Your task to perform on an android device: Open Google Chrome and open the bookmarks view Image 0: 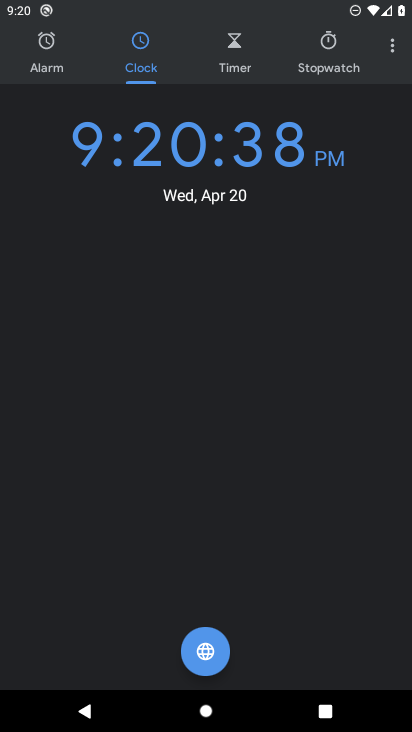
Step 0: press home button
Your task to perform on an android device: Open Google Chrome and open the bookmarks view Image 1: 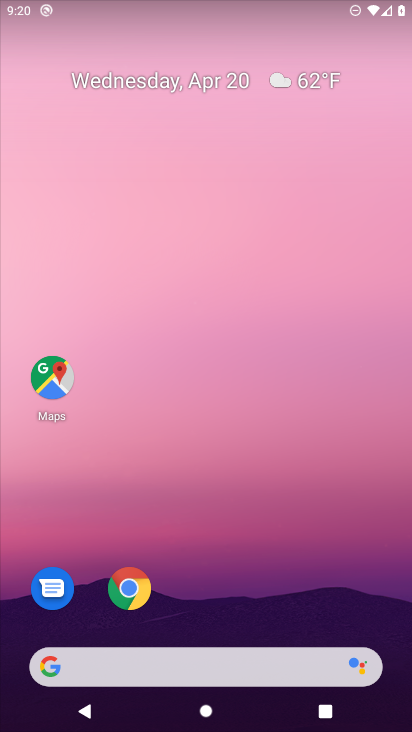
Step 1: drag from (245, 609) to (249, 172)
Your task to perform on an android device: Open Google Chrome and open the bookmarks view Image 2: 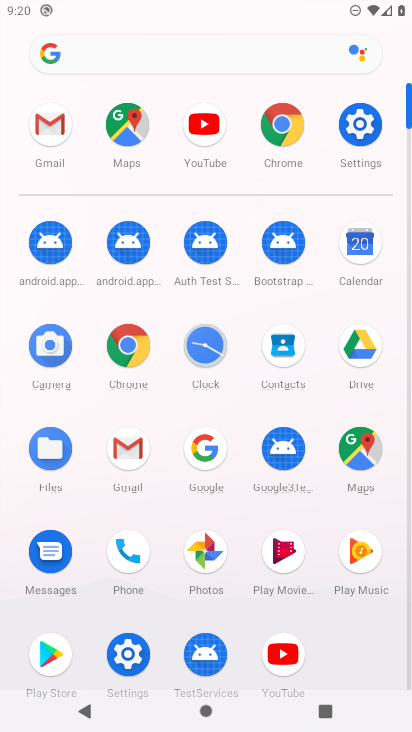
Step 2: click (272, 120)
Your task to perform on an android device: Open Google Chrome and open the bookmarks view Image 3: 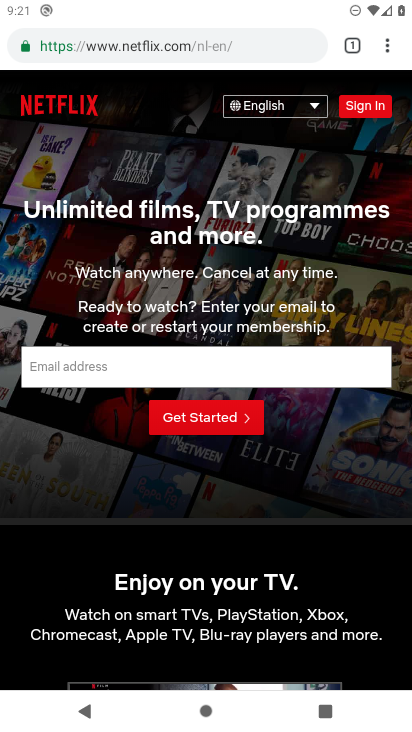
Step 3: click (385, 44)
Your task to perform on an android device: Open Google Chrome and open the bookmarks view Image 4: 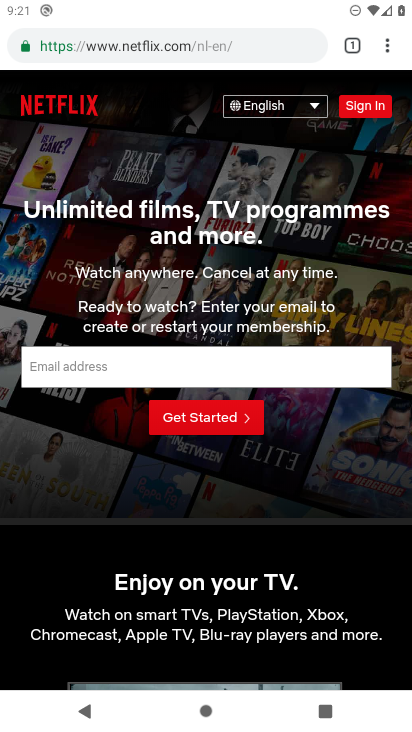
Step 4: click (389, 42)
Your task to perform on an android device: Open Google Chrome and open the bookmarks view Image 5: 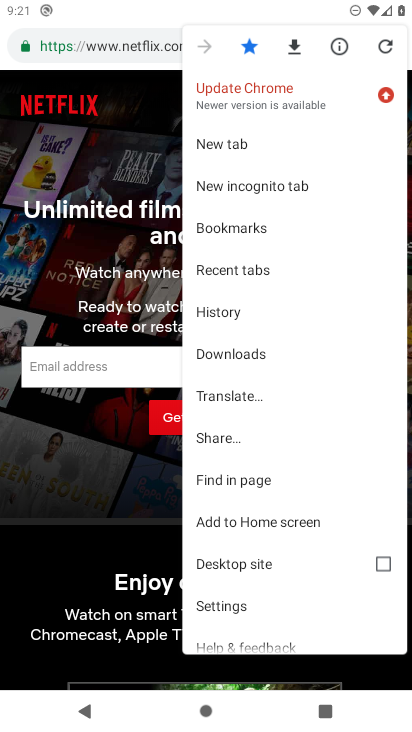
Step 5: click (273, 225)
Your task to perform on an android device: Open Google Chrome and open the bookmarks view Image 6: 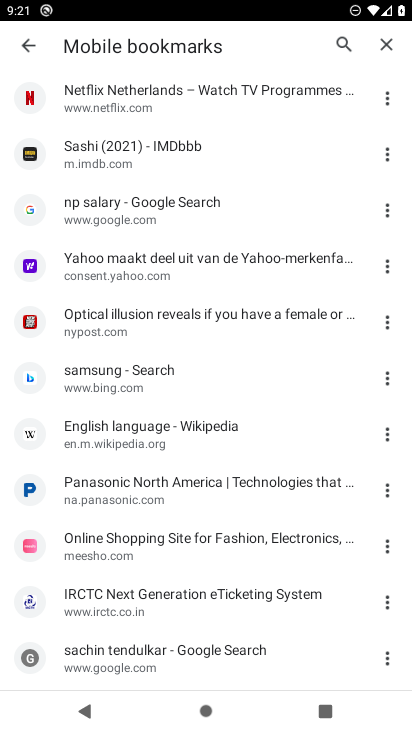
Step 6: click (121, 264)
Your task to perform on an android device: Open Google Chrome and open the bookmarks view Image 7: 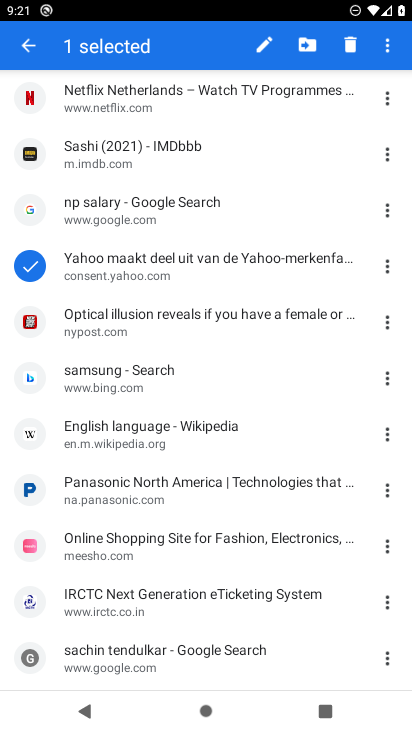
Step 7: click (25, 36)
Your task to perform on an android device: Open Google Chrome and open the bookmarks view Image 8: 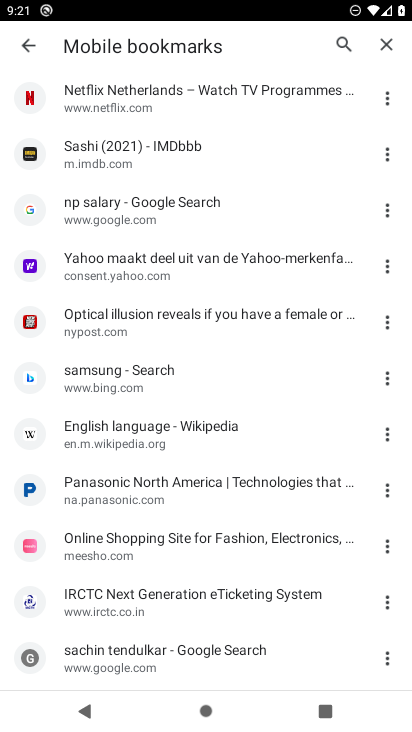
Step 8: click (213, 263)
Your task to perform on an android device: Open Google Chrome and open the bookmarks view Image 9: 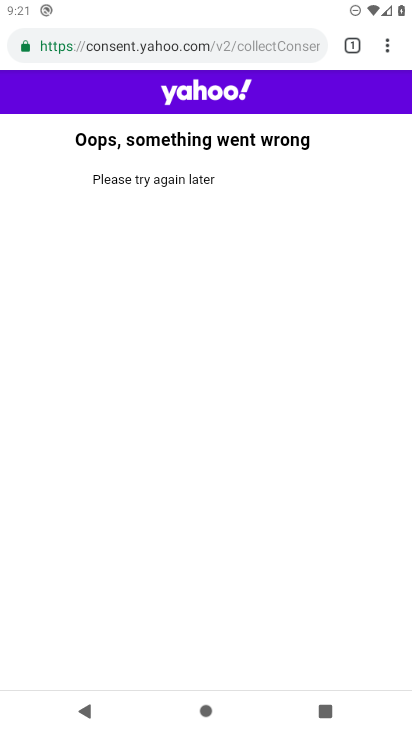
Step 9: task complete